Your task to perform on an android device: What's the weather like in Moscow? Image 0: 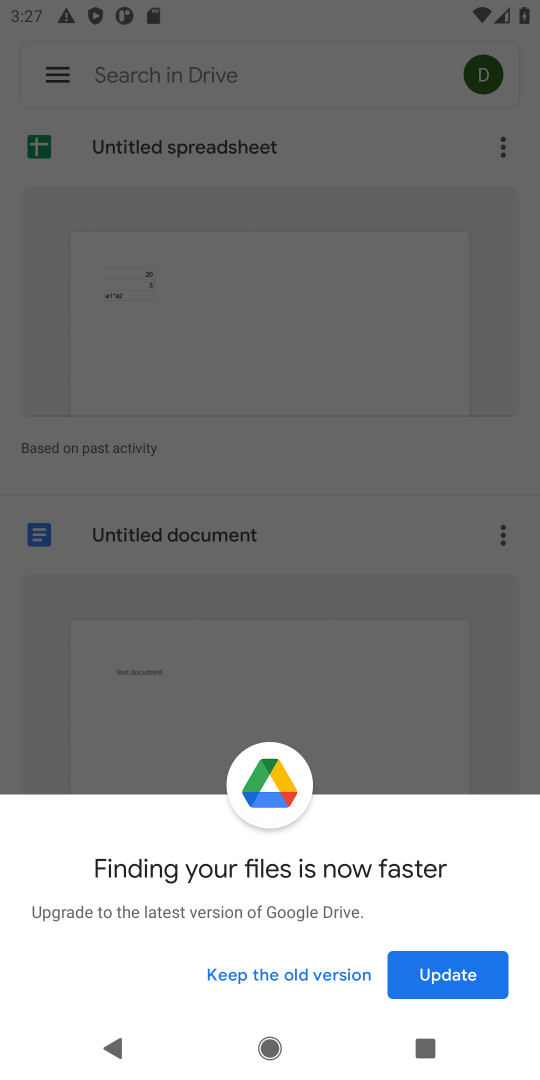
Step 0: press home button
Your task to perform on an android device: What's the weather like in Moscow? Image 1: 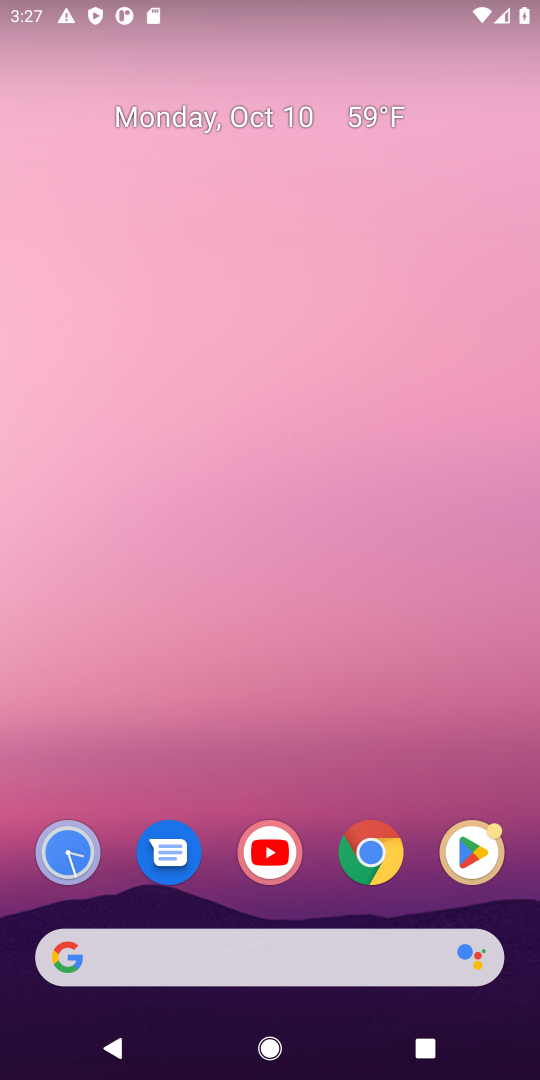
Step 1: click (368, 853)
Your task to perform on an android device: What's the weather like in Moscow? Image 2: 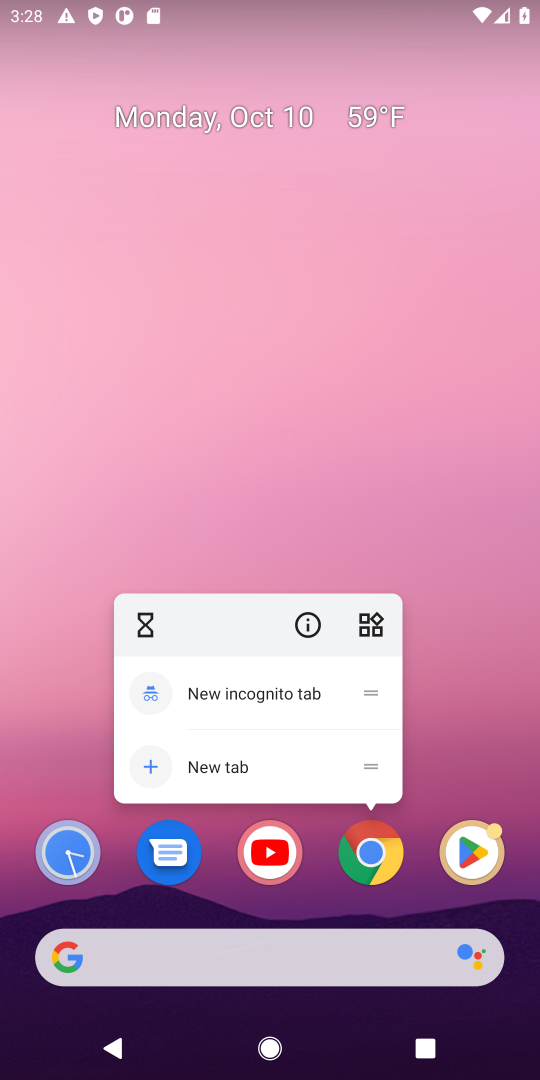
Step 2: click (380, 854)
Your task to perform on an android device: What's the weather like in Moscow? Image 3: 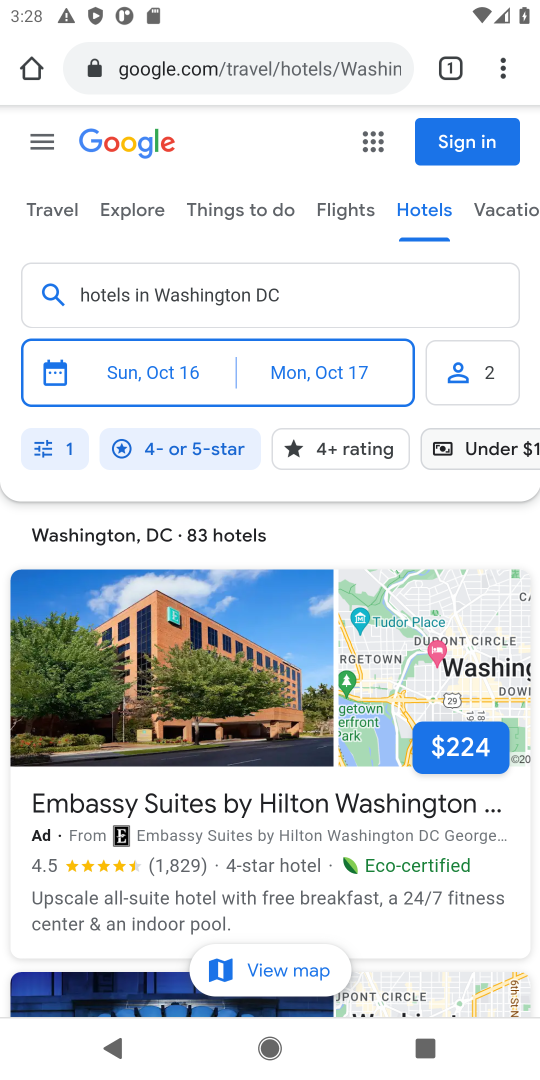
Step 3: click (298, 63)
Your task to perform on an android device: What's the weather like in Moscow? Image 4: 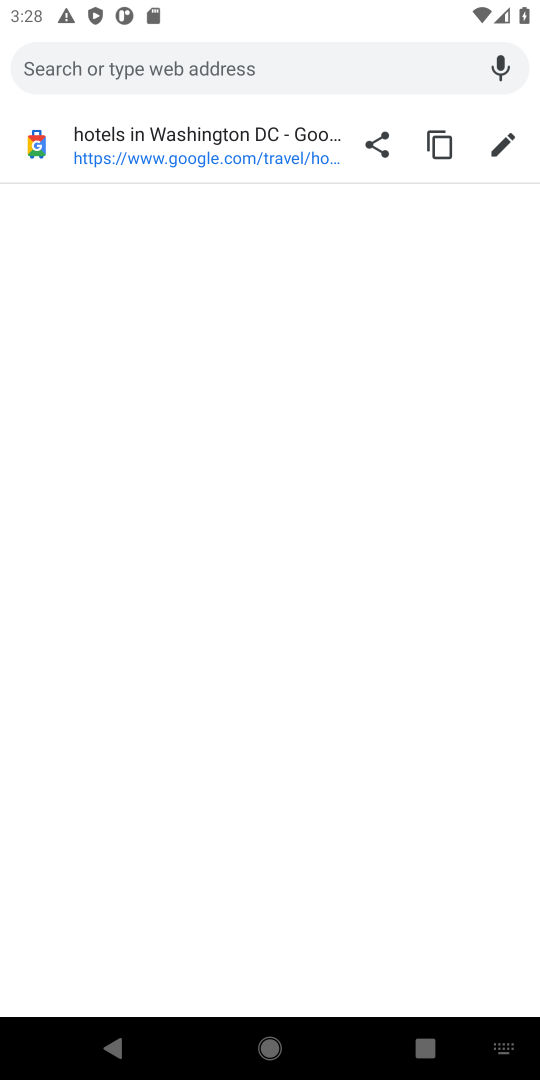
Step 4: click (276, 62)
Your task to perform on an android device: What's the weather like in Moscow? Image 5: 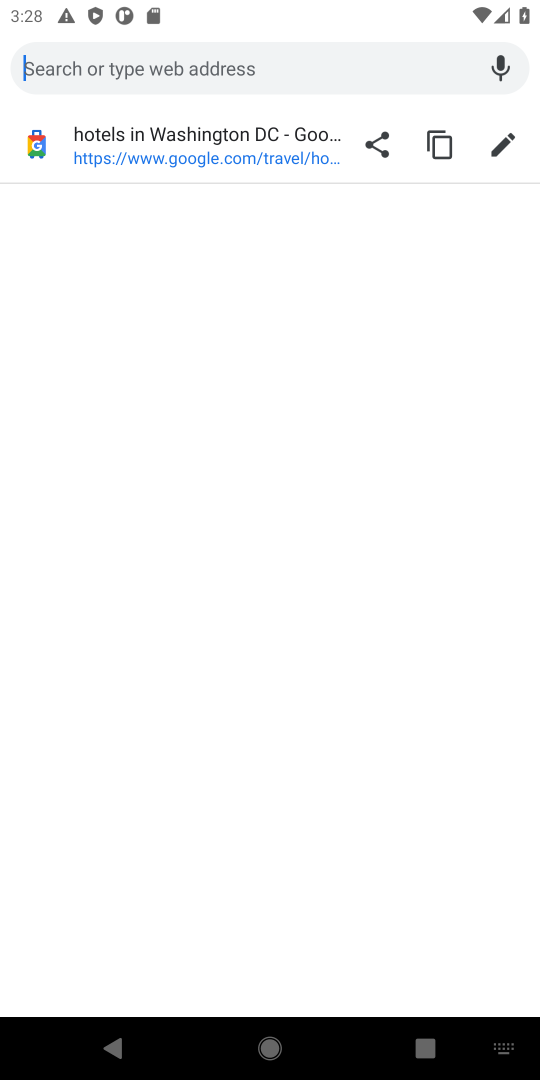
Step 5: type "weather like in Moscow"
Your task to perform on an android device: What's the weather like in Moscow? Image 6: 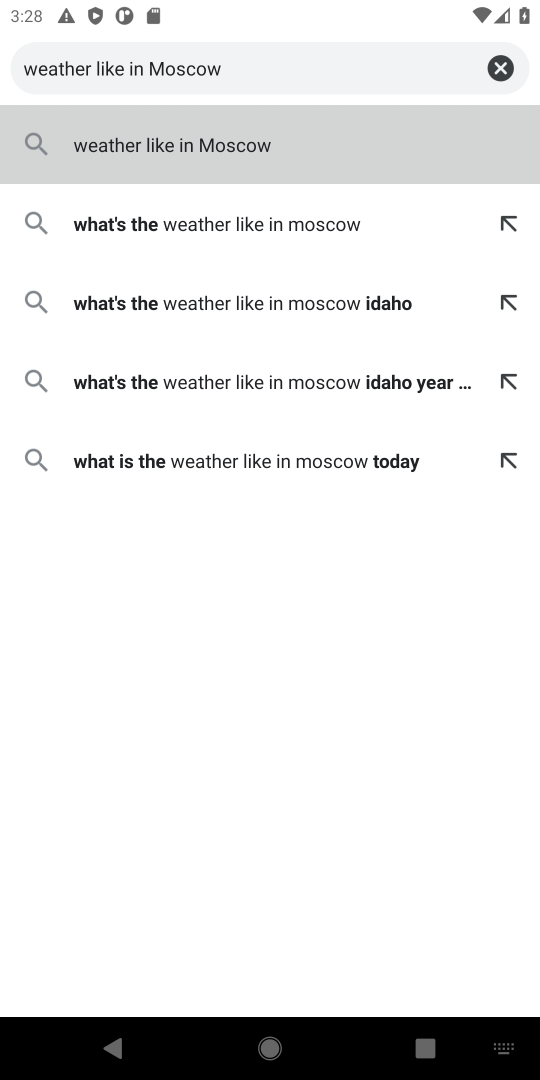
Step 6: type ""
Your task to perform on an android device: What's the weather like in Moscow? Image 7: 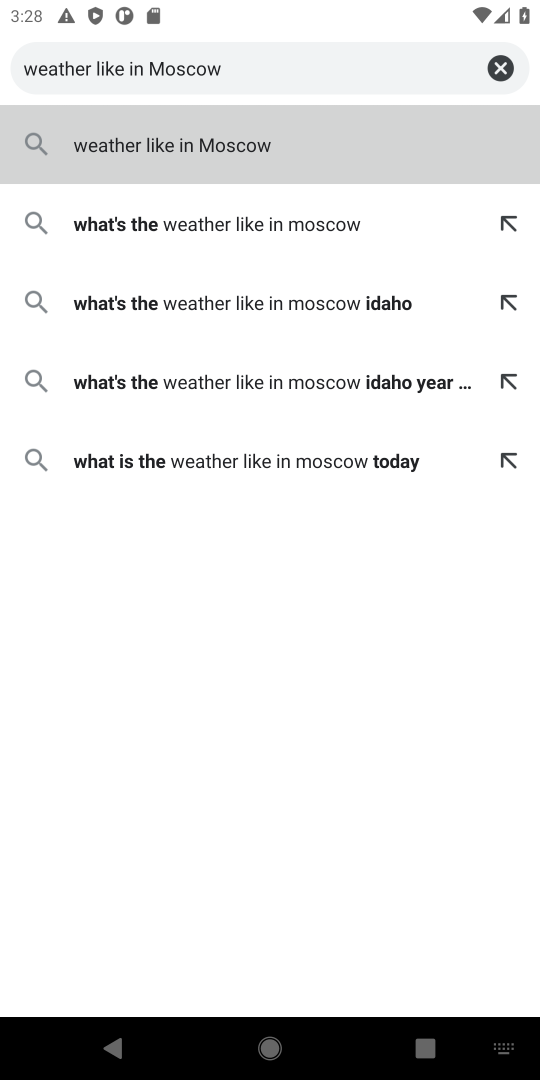
Step 7: click (182, 141)
Your task to perform on an android device: What's the weather like in Moscow? Image 8: 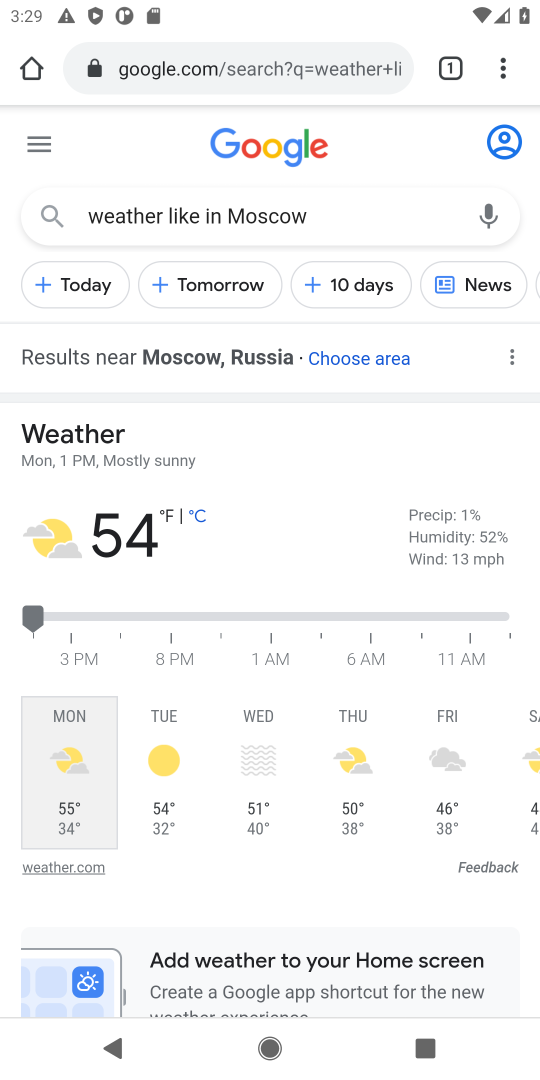
Step 8: task complete